Your task to perform on an android device: change notification settings in the gmail app Image 0: 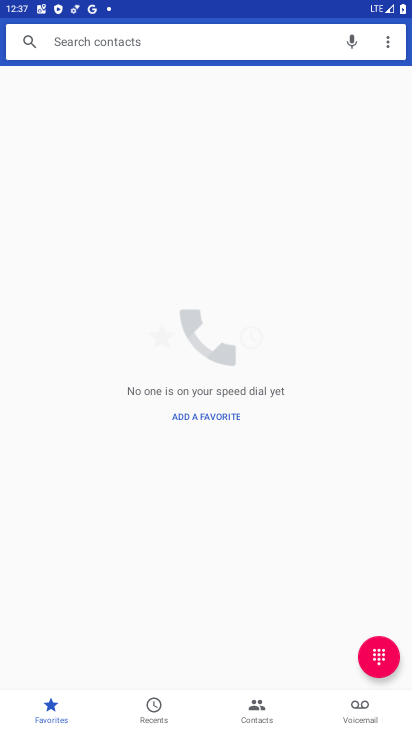
Step 0: press home button
Your task to perform on an android device: change notification settings in the gmail app Image 1: 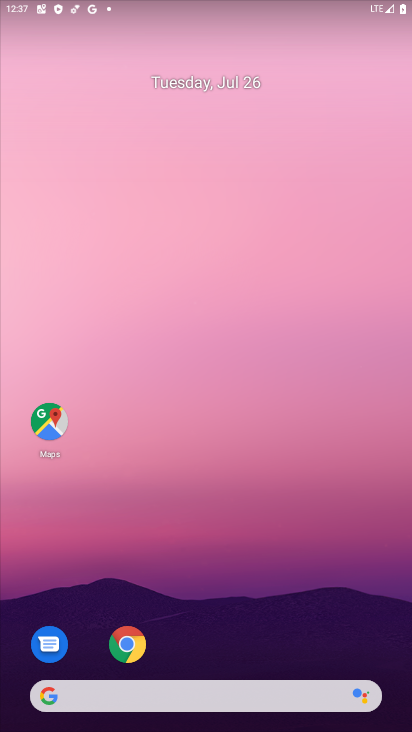
Step 1: drag from (242, 597) to (232, 12)
Your task to perform on an android device: change notification settings in the gmail app Image 2: 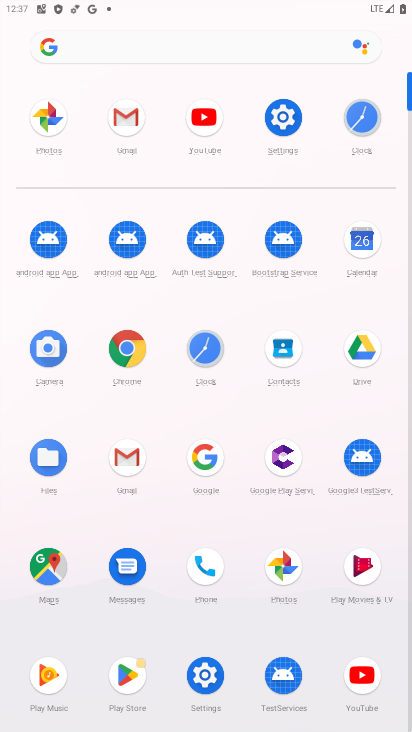
Step 2: click (125, 123)
Your task to perform on an android device: change notification settings in the gmail app Image 3: 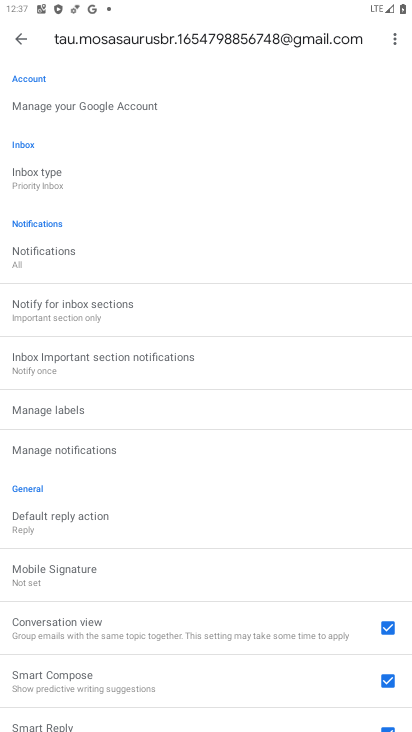
Step 3: click (14, 38)
Your task to perform on an android device: change notification settings in the gmail app Image 4: 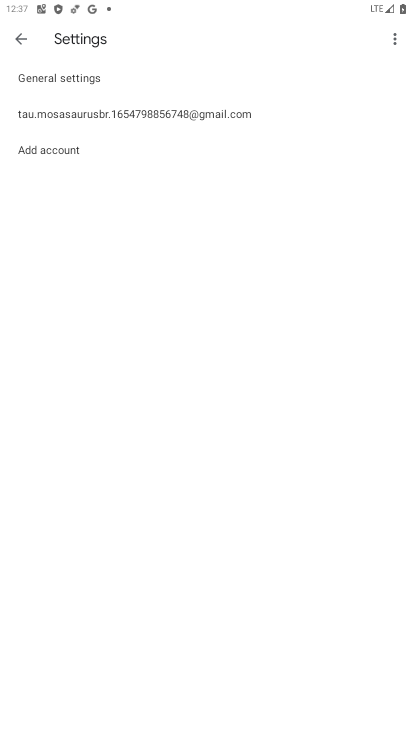
Step 4: click (72, 80)
Your task to perform on an android device: change notification settings in the gmail app Image 5: 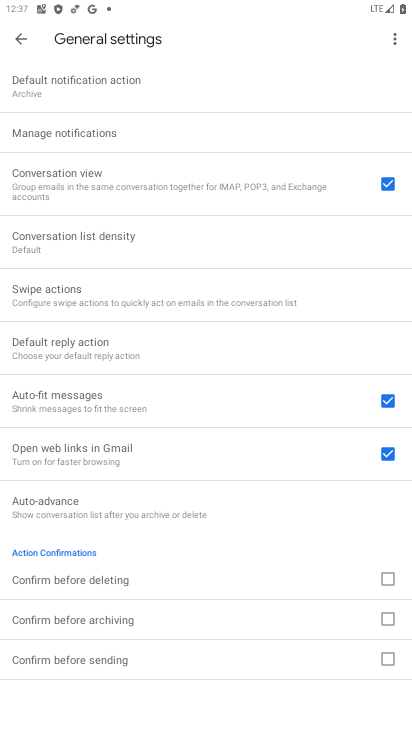
Step 5: click (69, 131)
Your task to perform on an android device: change notification settings in the gmail app Image 6: 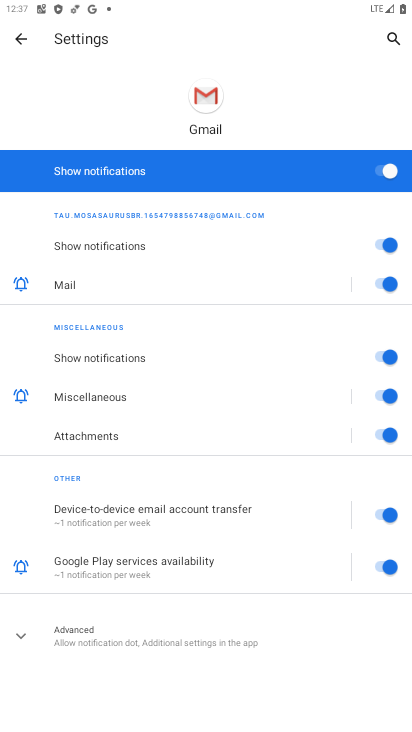
Step 6: click (384, 174)
Your task to perform on an android device: change notification settings in the gmail app Image 7: 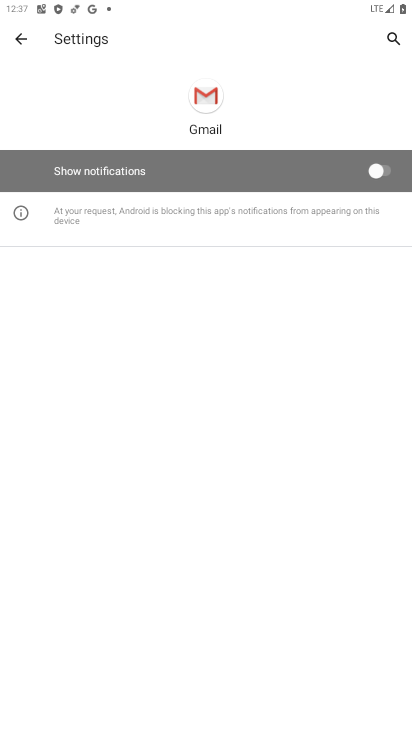
Step 7: task complete